Your task to perform on an android device: open sync settings in chrome Image 0: 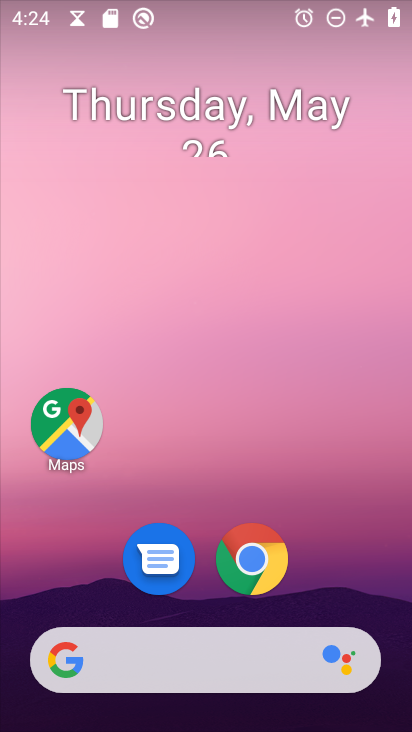
Step 0: click (244, 550)
Your task to perform on an android device: open sync settings in chrome Image 1: 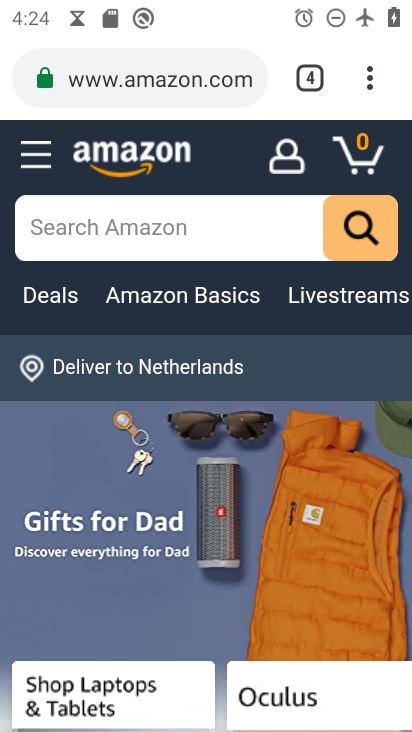
Step 1: click (370, 76)
Your task to perform on an android device: open sync settings in chrome Image 2: 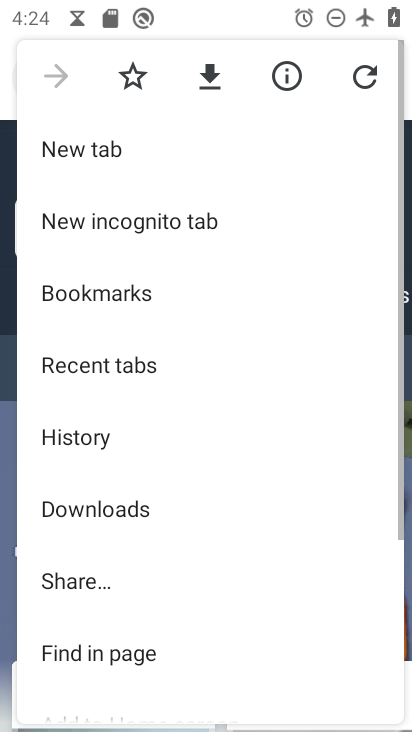
Step 2: drag from (198, 608) to (228, 166)
Your task to perform on an android device: open sync settings in chrome Image 3: 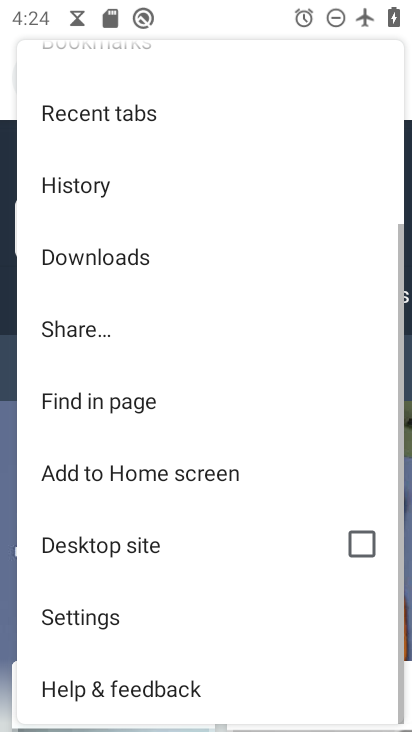
Step 3: click (143, 611)
Your task to perform on an android device: open sync settings in chrome Image 4: 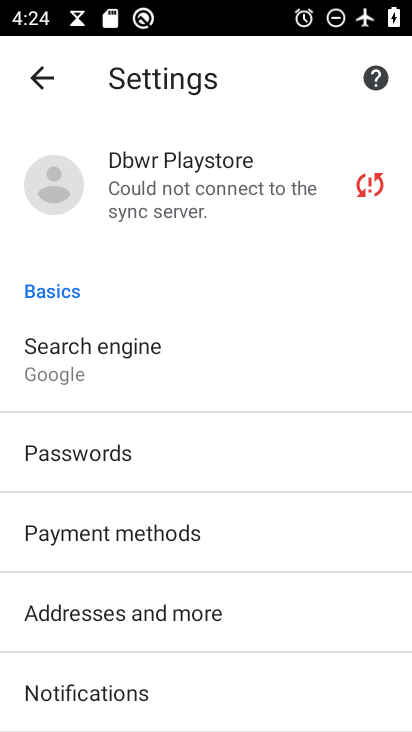
Step 4: drag from (224, 630) to (269, 170)
Your task to perform on an android device: open sync settings in chrome Image 5: 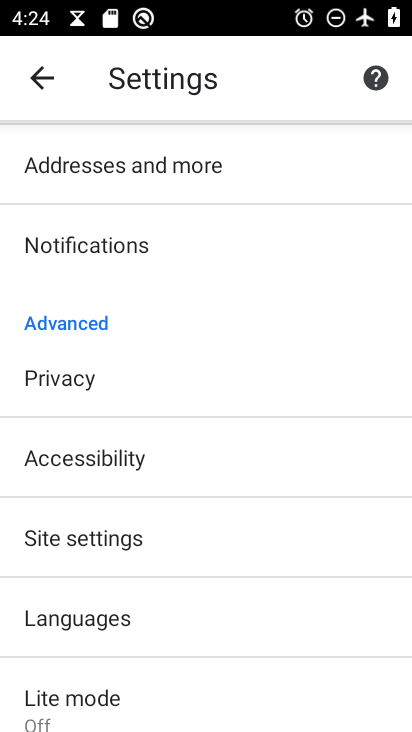
Step 5: drag from (198, 615) to (207, 235)
Your task to perform on an android device: open sync settings in chrome Image 6: 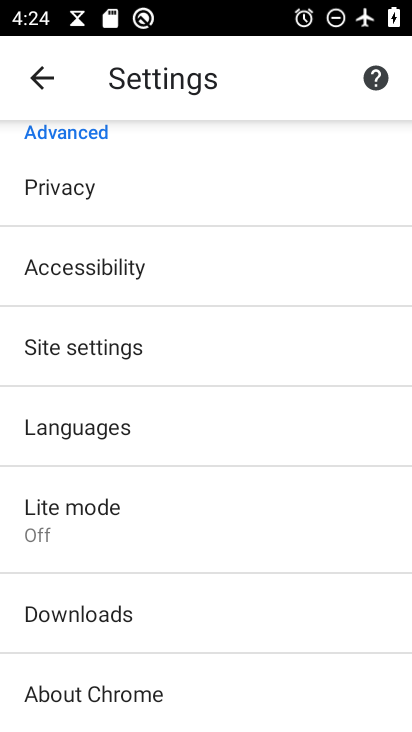
Step 6: click (171, 347)
Your task to perform on an android device: open sync settings in chrome Image 7: 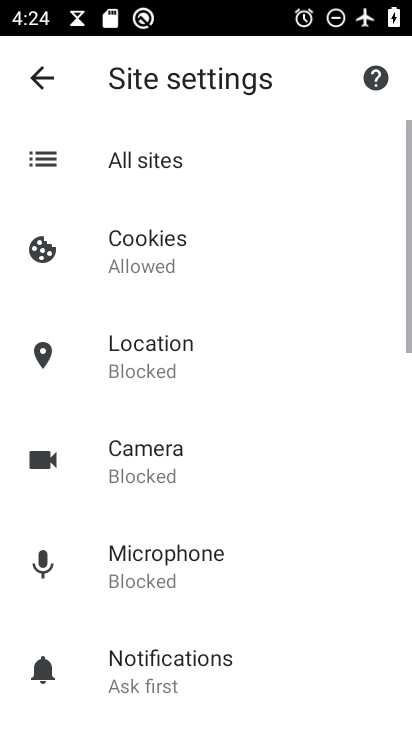
Step 7: drag from (236, 632) to (246, 189)
Your task to perform on an android device: open sync settings in chrome Image 8: 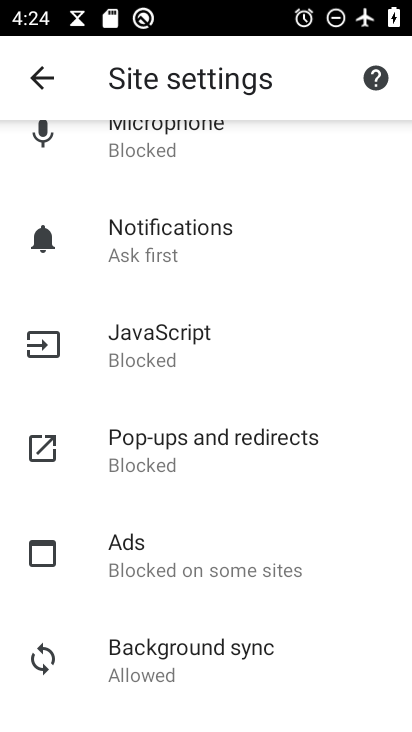
Step 8: click (247, 649)
Your task to perform on an android device: open sync settings in chrome Image 9: 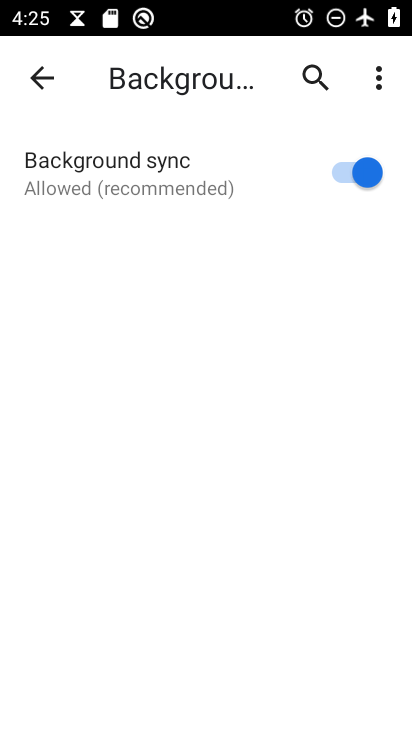
Step 9: task complete